Your task to perform on an android device: change the clock style Image 0: 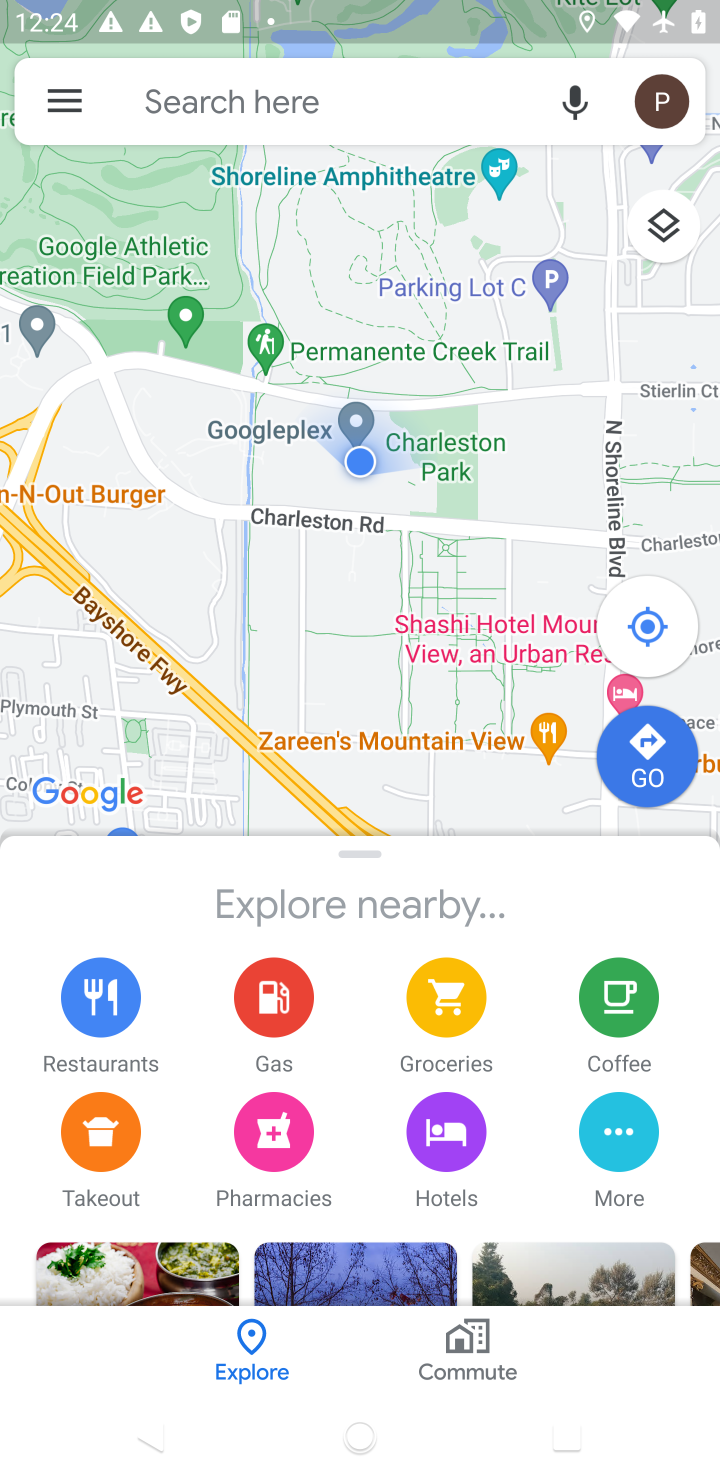
Step 0: press home button
Your task to perform on an android device: change the clock style Image 1: 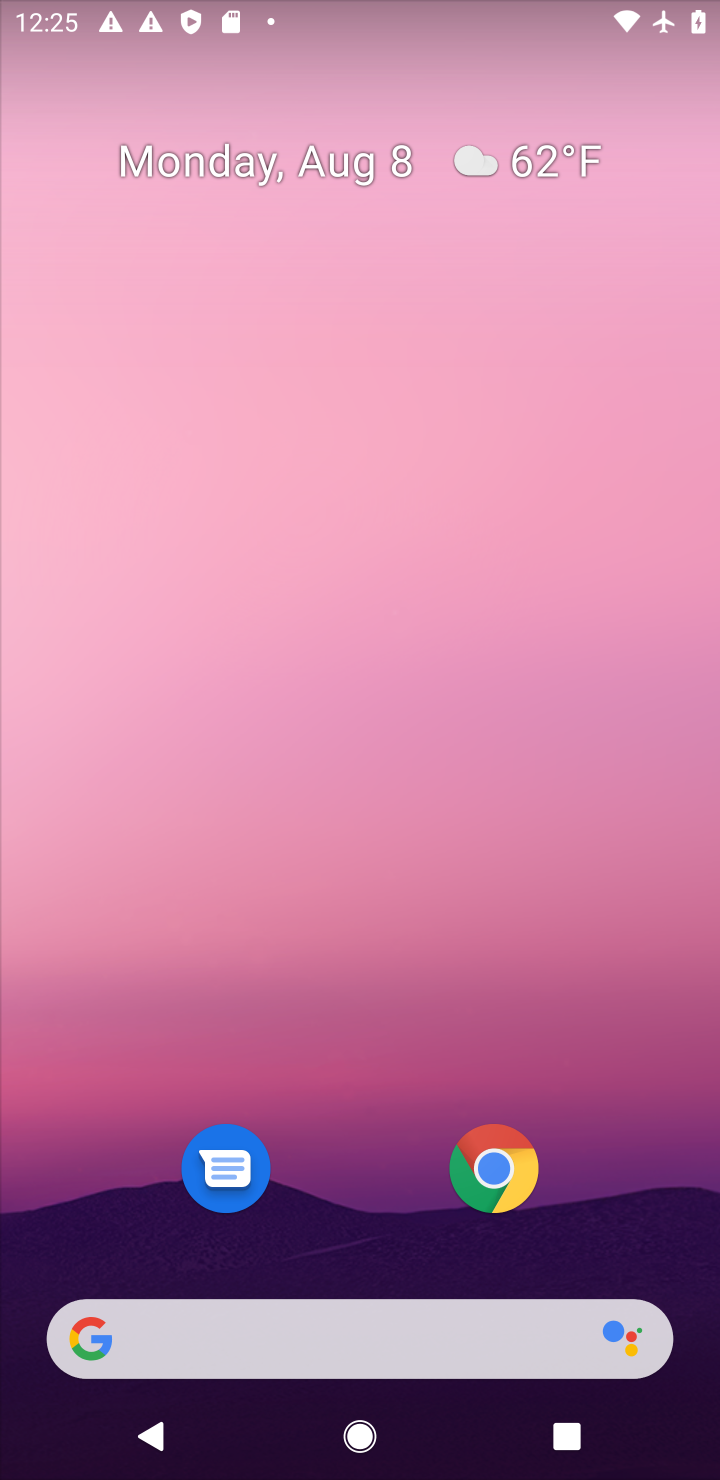
Step 1: drag from (359, 1287) to (247, 4)
Your task to perform on an android device: change the clock style Image 2: 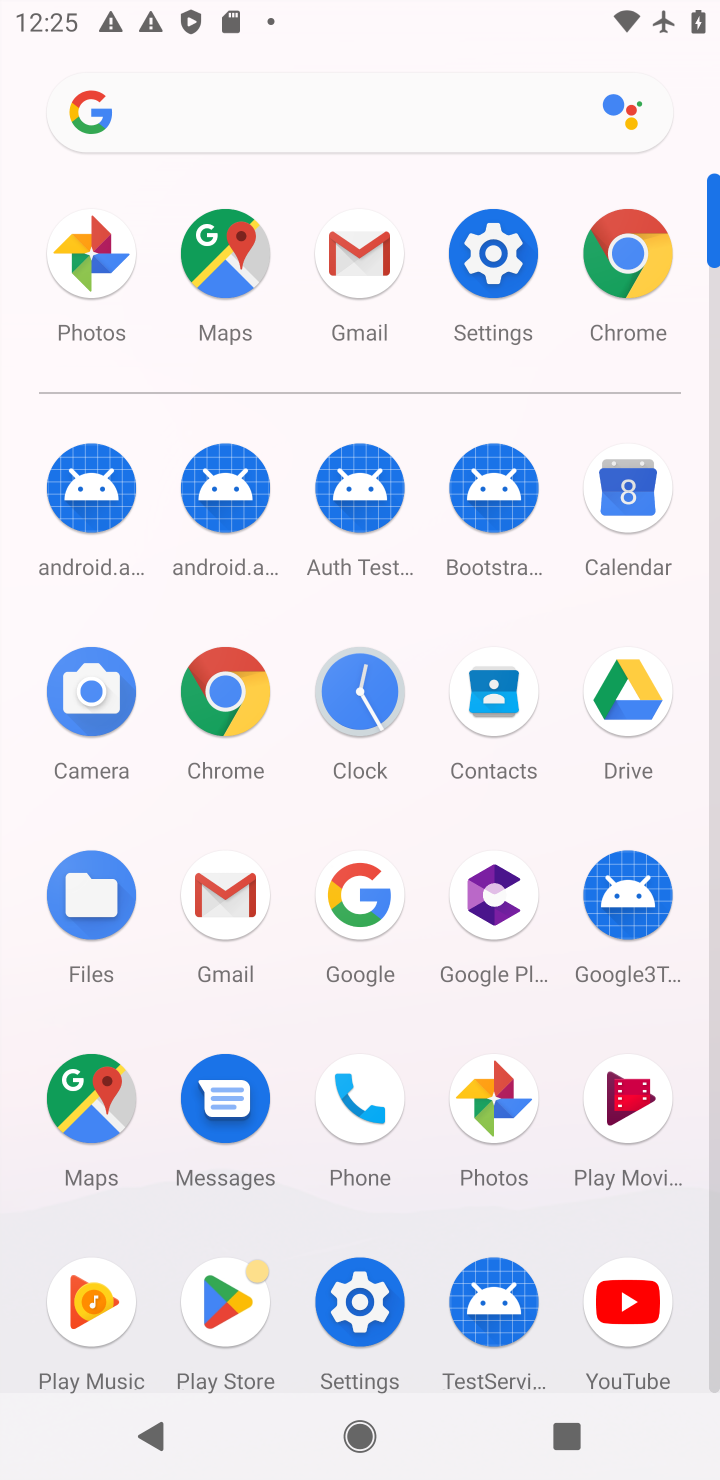
Step 2: click (357, 708)
Your task to perform on an android device: change the clock style Image 3: 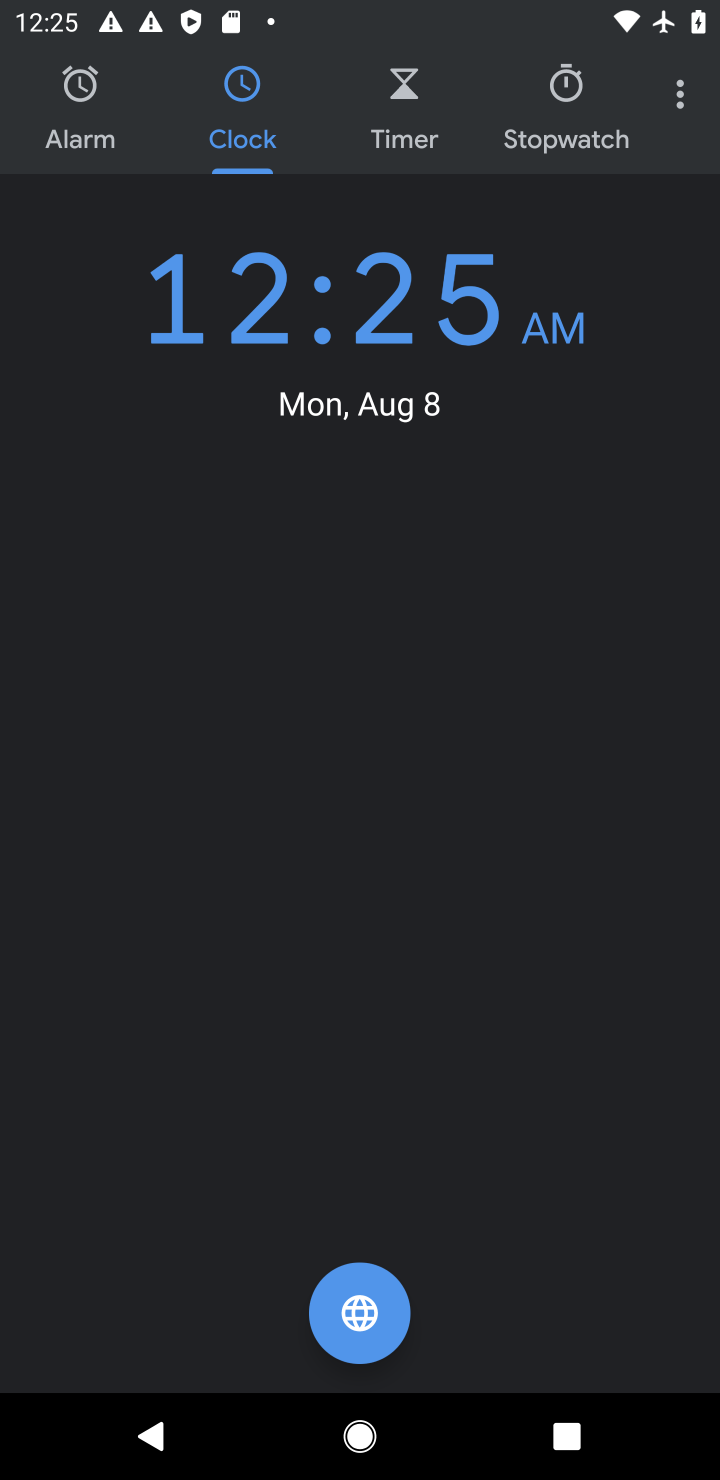
Step 3: click (675, 101)
Your task to perform on an android device: change the clock style Image 4: 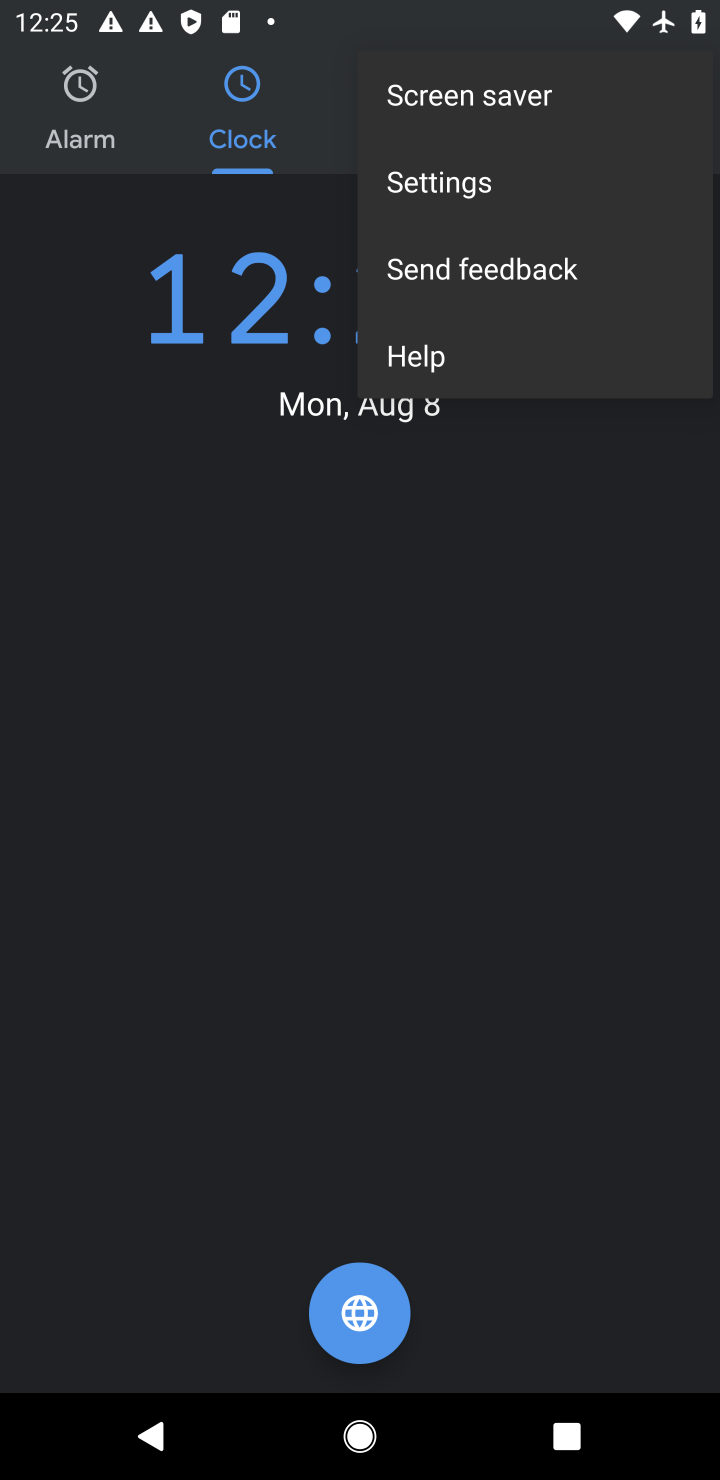
Step 4: click (474, 196)
Your task to perform on an android device: change the clock style Image 5: 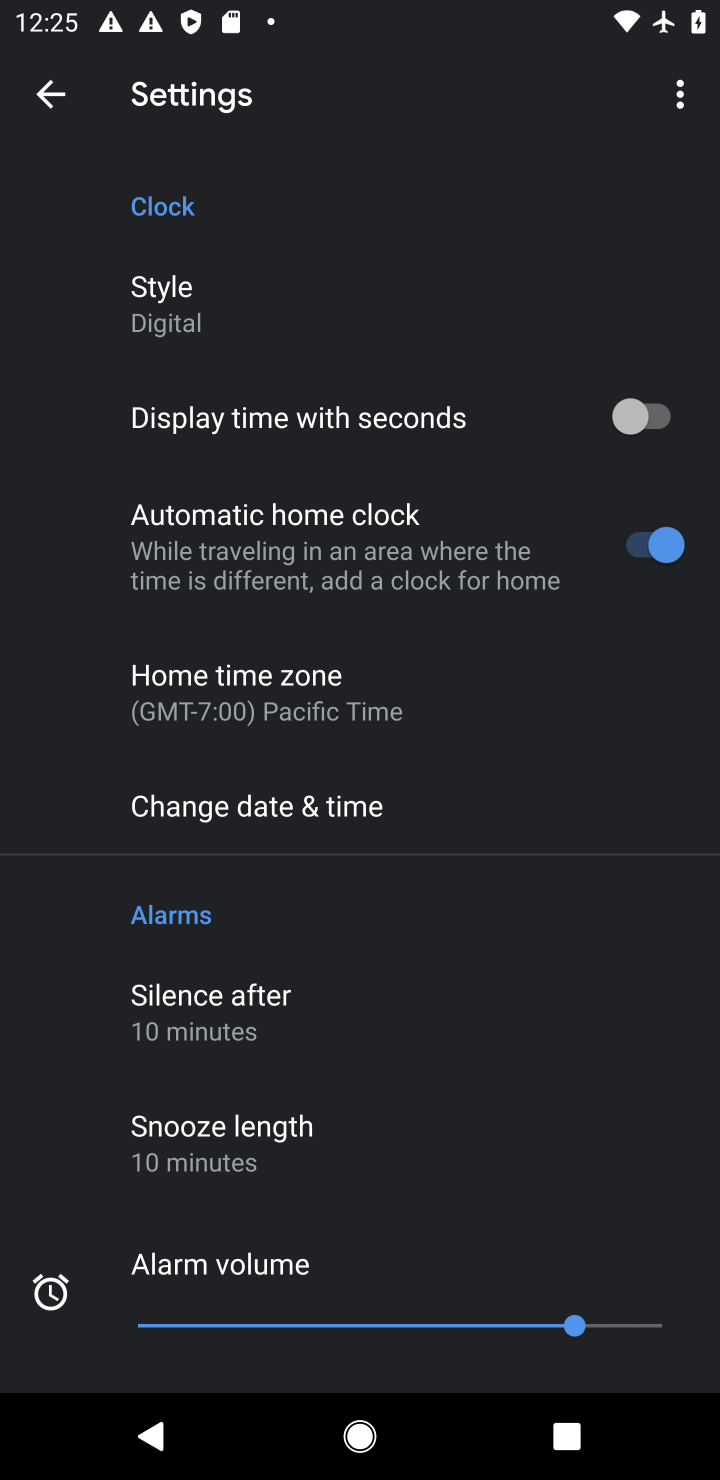
Step 5: click (352, 302)
Your task to perform on an android device: change the clock style Image 6: 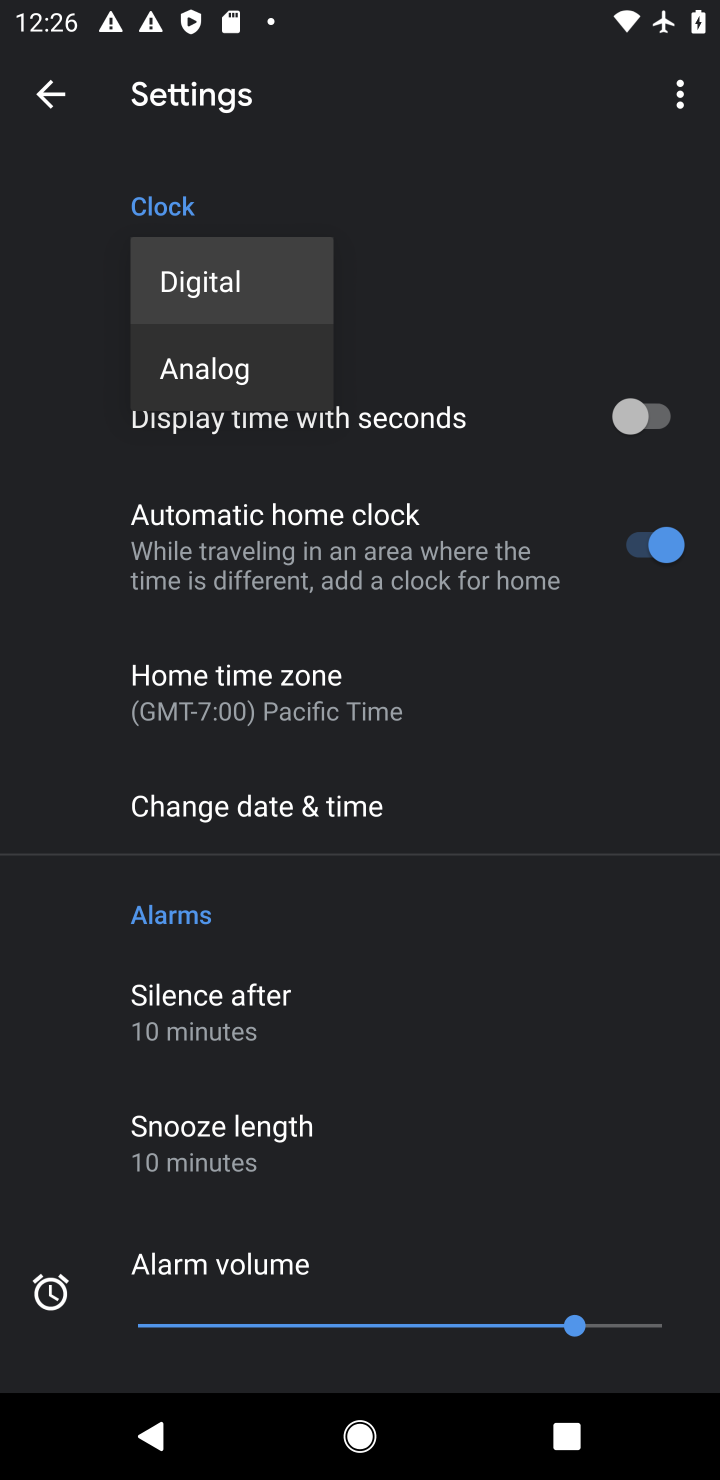
Step 6: click (107, 487)
Your task to perform on an android device: change the clock style Image 7: 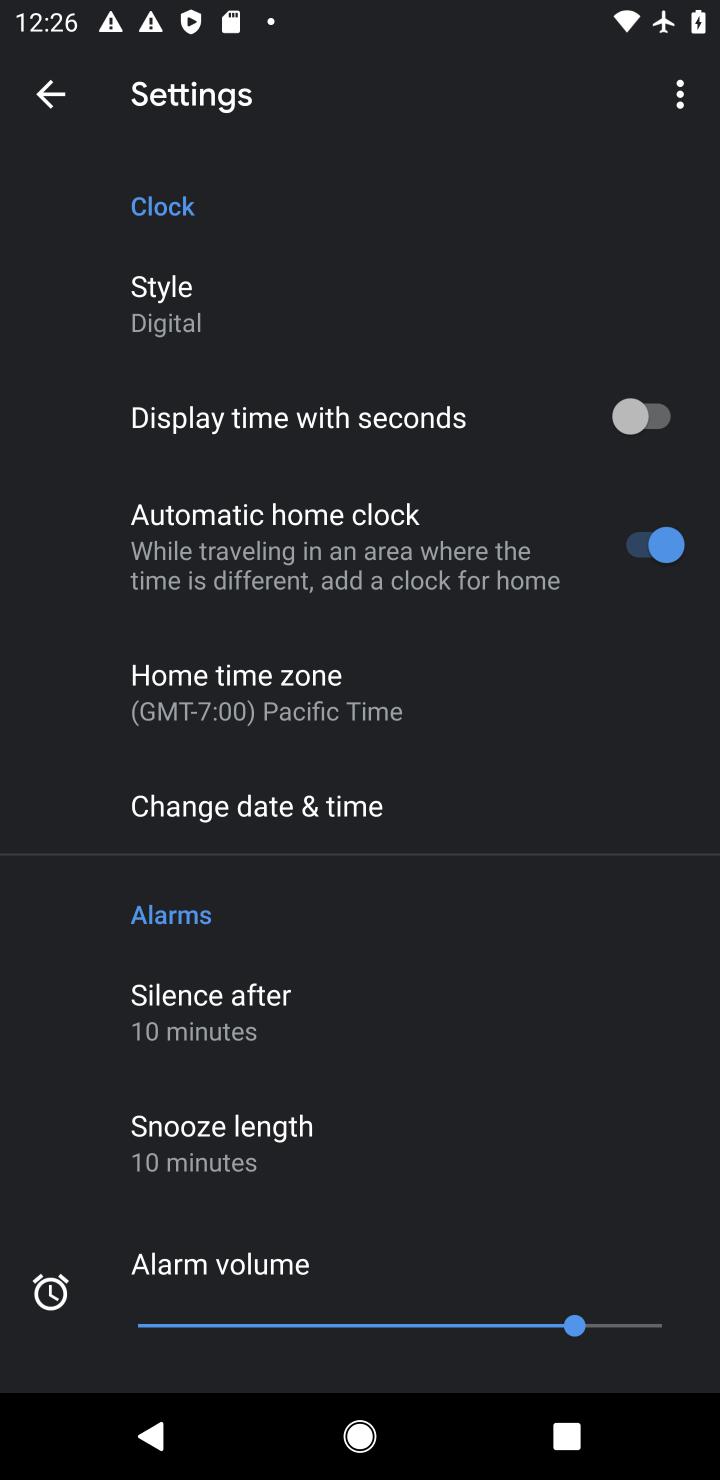
Step 7: task complete